Your task to perform on an android device: Open Chrome and go to the settings page Image 0: 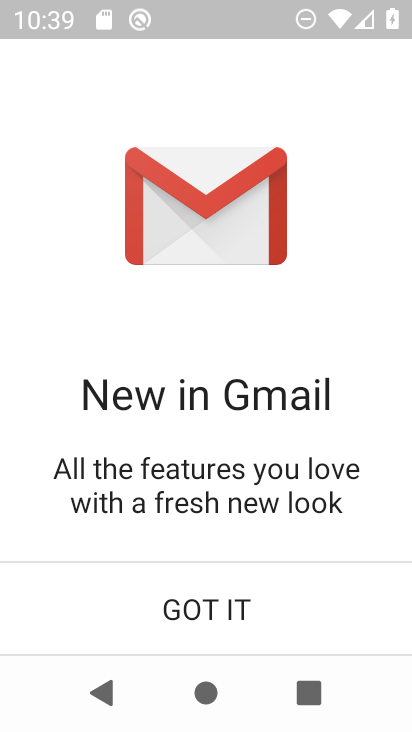
Step 0: press home button
Your task to perform on an android device: Open Chrome and go to the settings page Image 1: 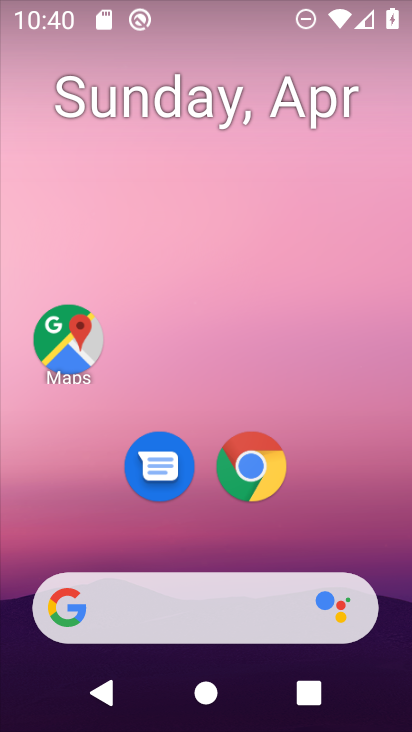
Step 1: drag from (359, 506) to (360, 101)
Your task to perform on an android device: Open Chrome and go to the settings page Image 2: 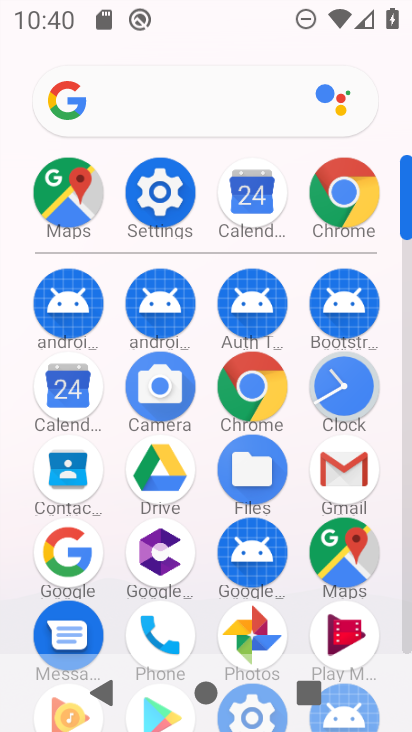
Step 2: click (344, 195)
Your task to perform on an android device: Open Chrome and go to the settings page Image 3: 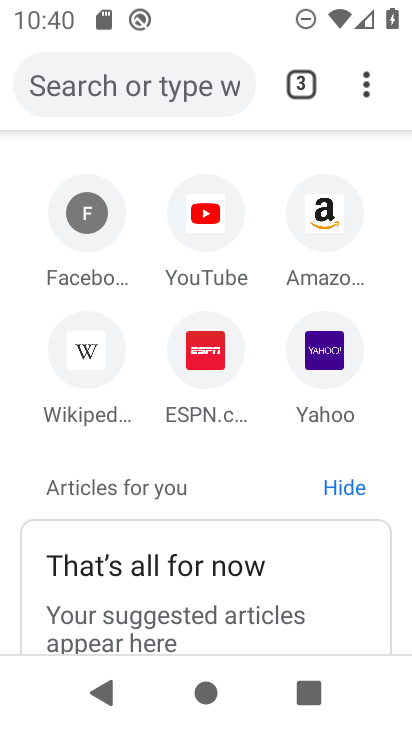
Step 3: click (368, 87)
Your task to perform on an android device: Open Chrome and go to the settings page Image 4: 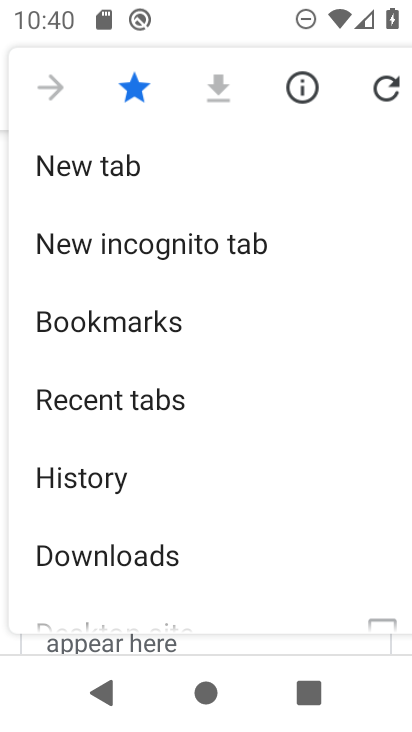
Step 4: drag from (274, 508) to (250, 237)
Your task to perform on an android device: Open Chrome and go to the settings page Image 5: 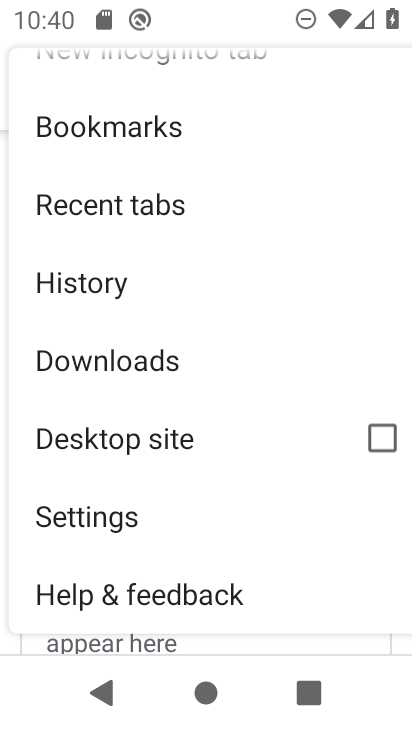
Step 5: click (114, 519)
Your task to perform on an android device: Open Chrome and go to the settings page Image 6: 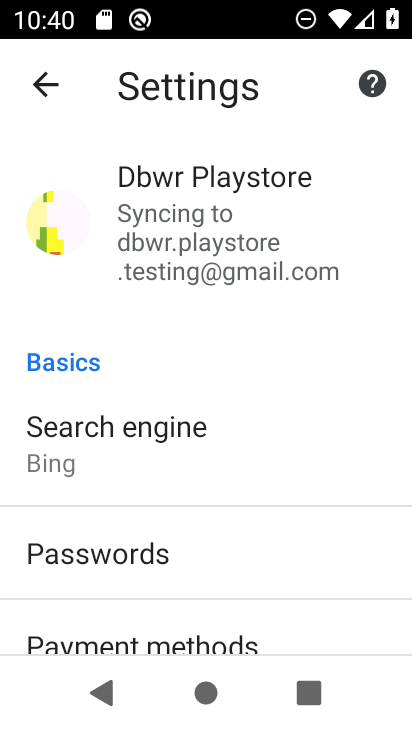
Step 6: task complete